Your task to perform on an android device: Open calendar and show me the third week of next month Image 0: 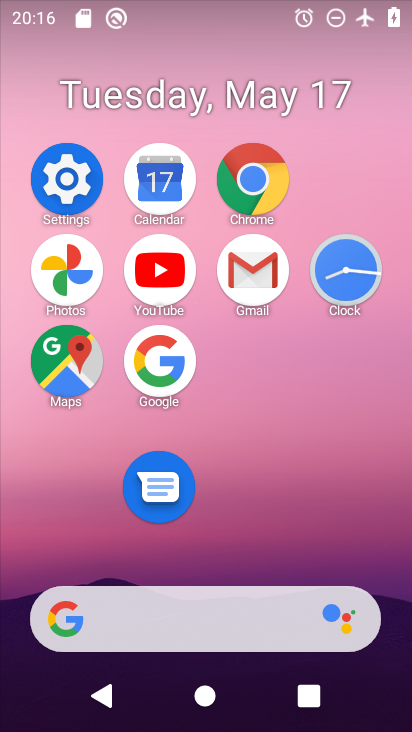
Step 0: click (154, 164)
Your task to perform on an android device: Open calendar and show me the third week of next month Image 1: 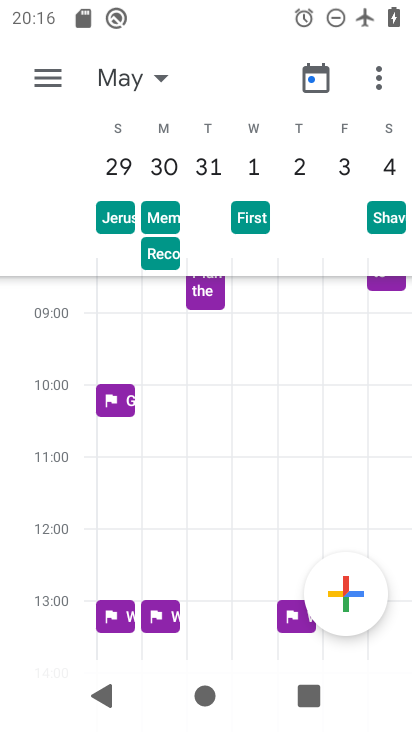
Step 1: click (121, 96)
Your task to perform on an android device: Open calendar and show me the third week of next month Image 2: 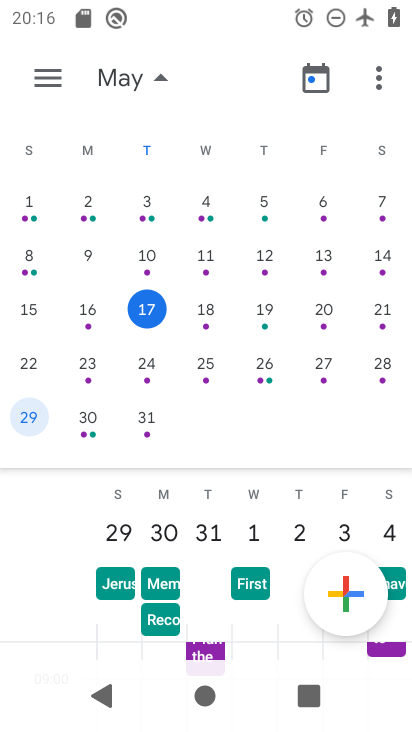
Step 2: drag from (376, 268) to (200, 2)
Your task to perform on an android device: Open calendar and show me the third week of next month Image 3: 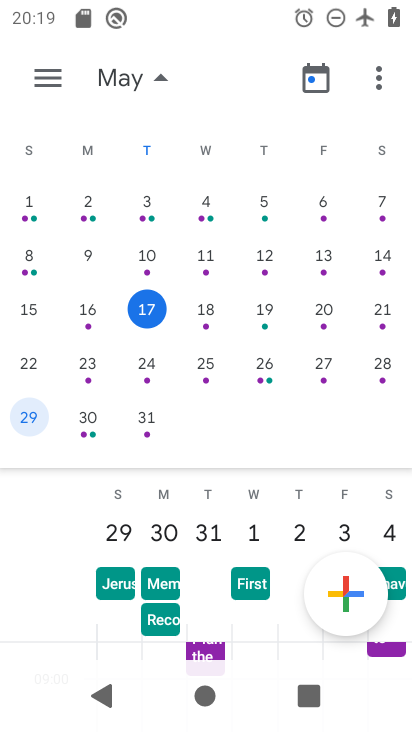
Step 3: drag from (359, 287) to (6, 256)
Your task to perform on an android device: Open calendar and show me the third week of next month Image 4: 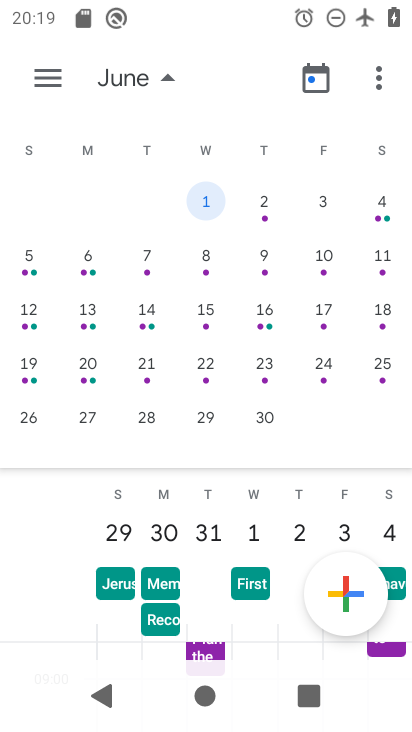
Step 4: click (43, 70)
Your task to perform on an android device: Open calendar and show me the third week of next month Image 5: 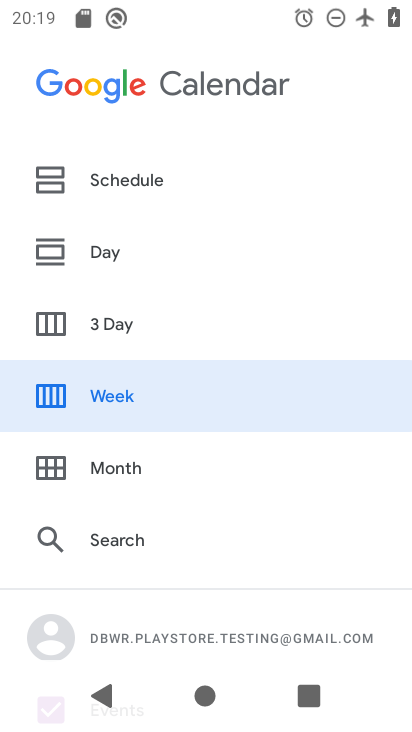
Step 5: click (142, 381)
Your task to perform on an android device: Open calendar and show me the third week of next month Image 6: 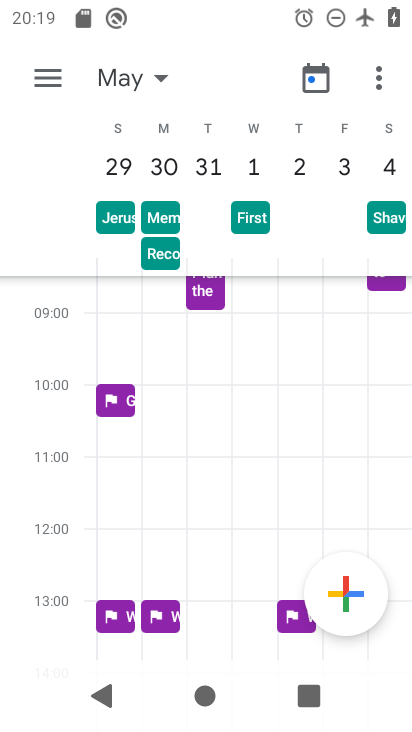
Step 6: task complete